Your task to perform on an android device: Go to network settings Image 0: 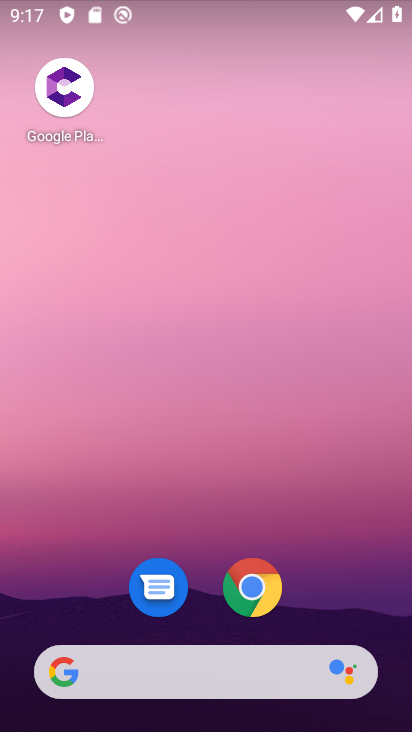
Step 0: drag from (192, 693) to (168, 179)
Your task to perform on an android device: Go to network settings Image 1: 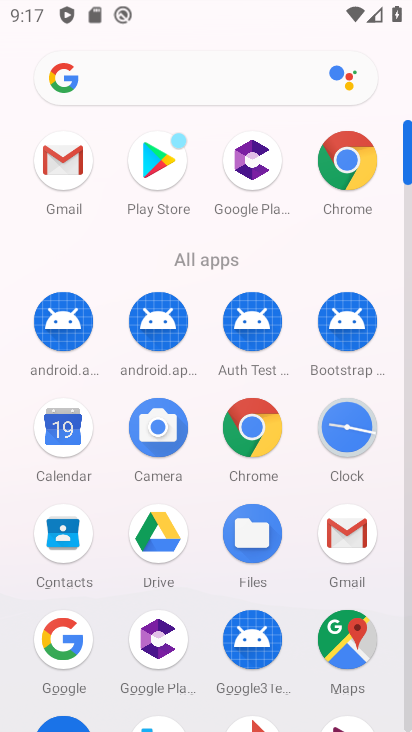
Step 1: drag from (224, 668) to (209, 77)
Your task to perform on an android device: Go to network settings Image 2: 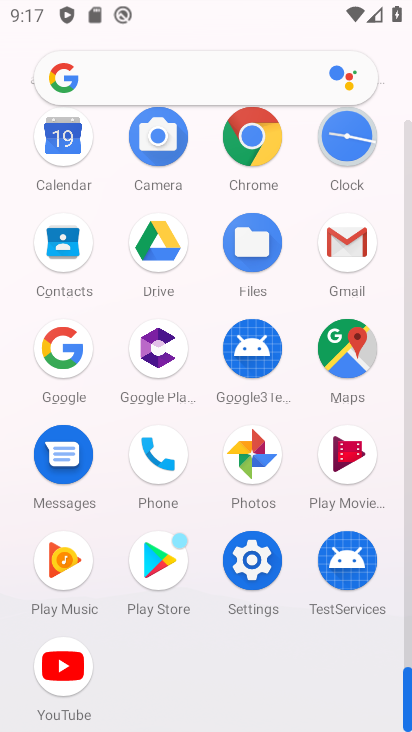
Step 2: click (268, 559)
Your task to perform on an android device: Go to network settings Image 3: 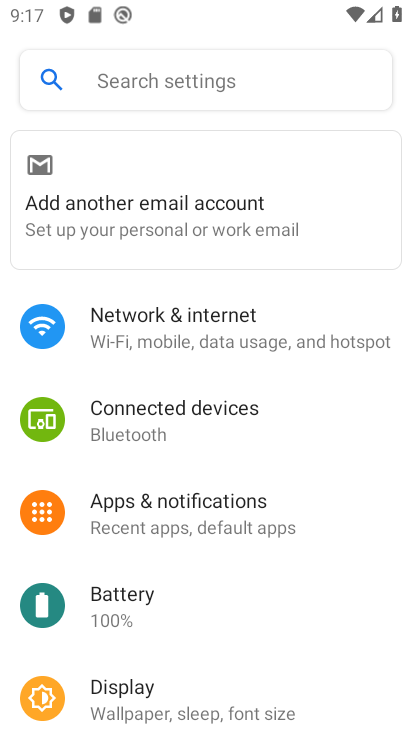
Step 3: click (178, 333)
Your task to perform on an android device: Go to network settings Image 4: 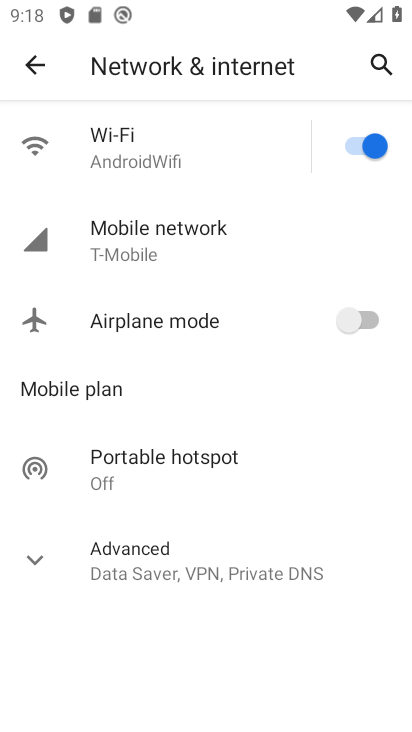
Step 4: task complete